Your task to perform on an android device: Go to sound settings Image 0: 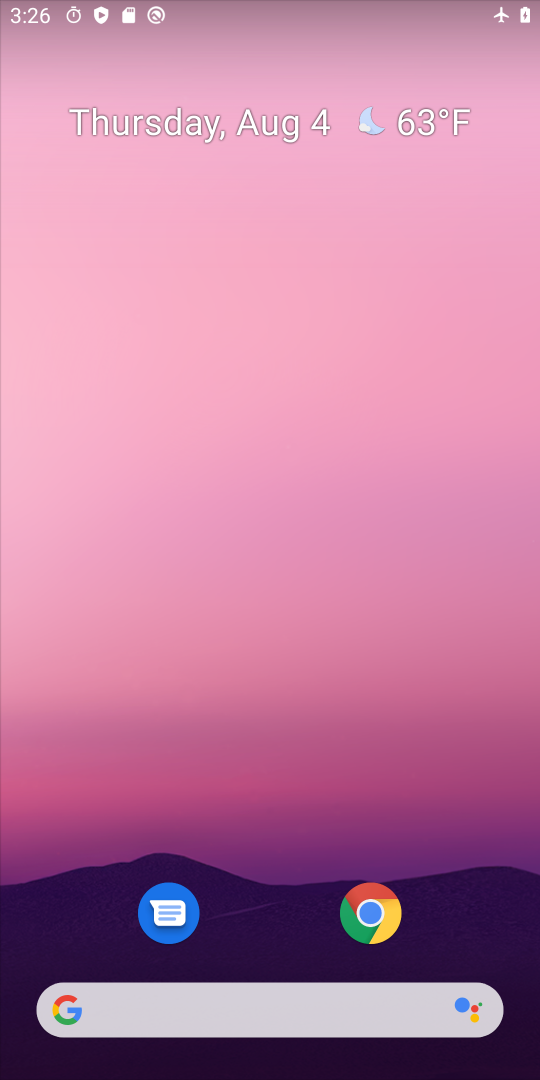
Step 0: drag from (401, 732) to (508, 95)
Your task to perform on an android device: Go to sound settings Image 1: 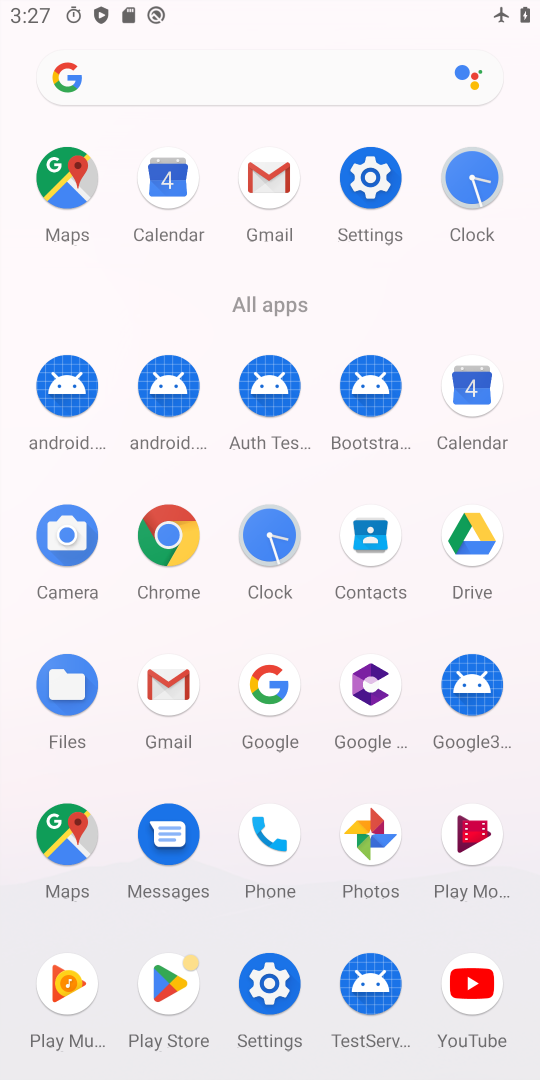
Step 1: click (365, 175)
Your task to perform on an android device: Go to sound settings Image 2: 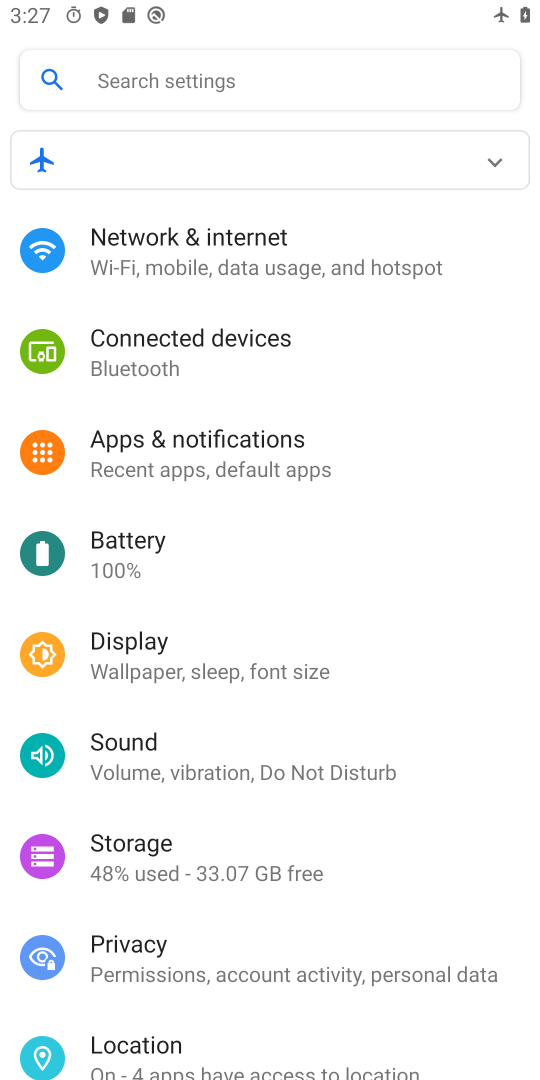
Step 2: click (169, 764)
Your task to perform on an android device: Go to sound settings Image 3: 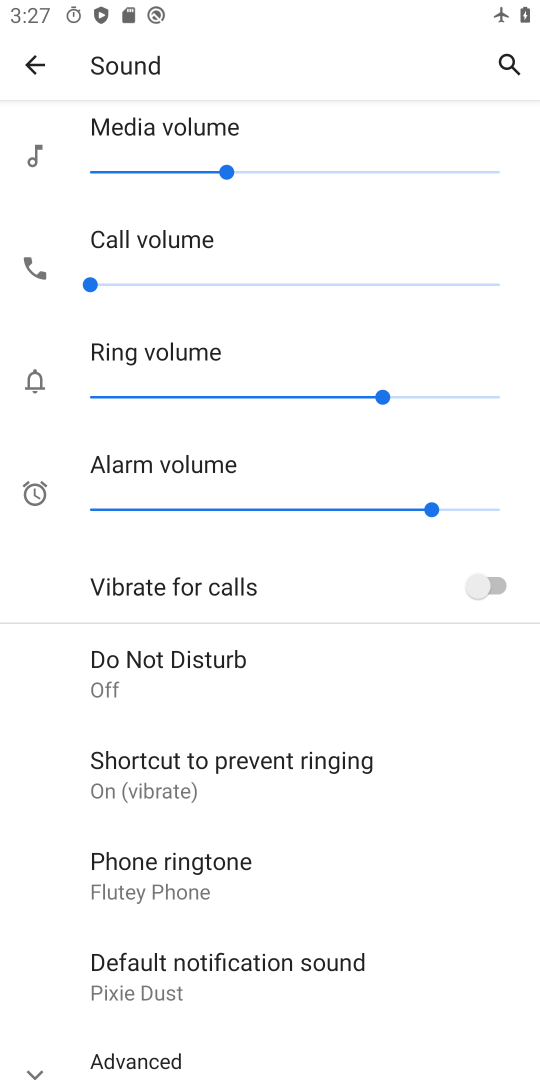
Step 3: task complete